Your task to perform on an android device: Go to Yahoo.com Image 0: 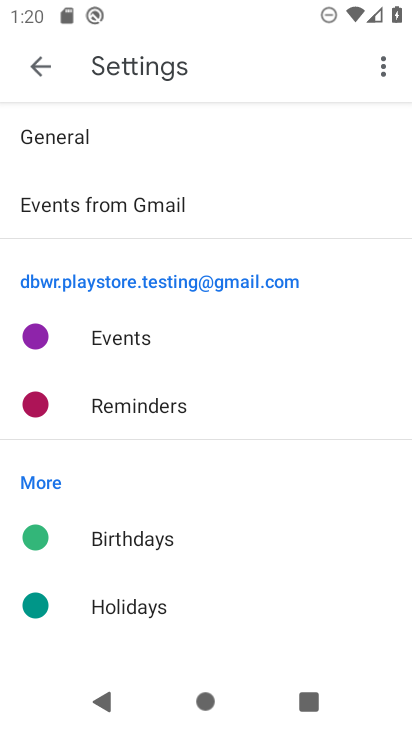
Step 0: press home button
Your task to perform on an android device: Go to Yahoo.com Image 1: 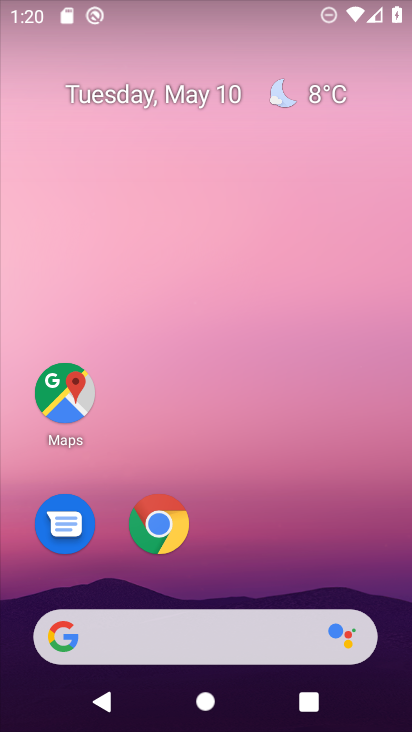
Step 1: click (275, 644)
Your task to perform on an android device: Go to Yahoo.com Image 2: 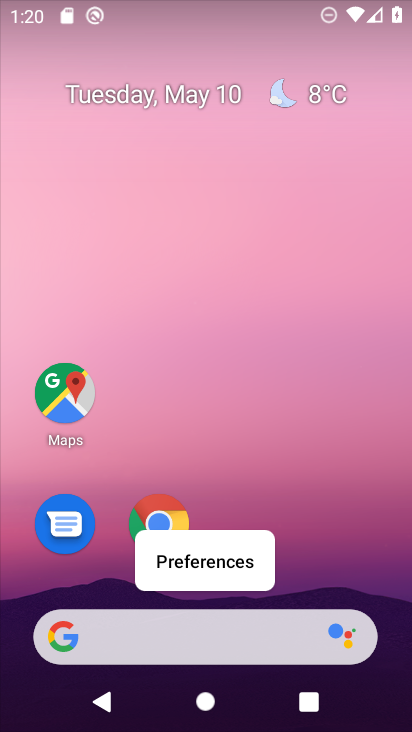
Step 2: click (267, 633)
Your task to perform on an android device: Go to Yahoo.com Image 3: 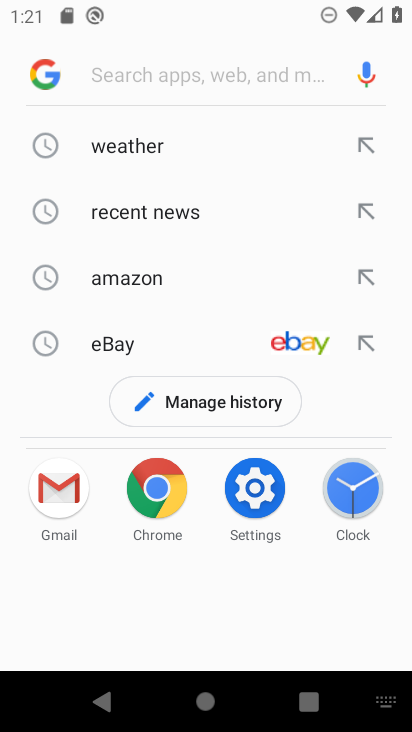
Step 3: type "yahoo.com"
Your task to perform on an android device: Go to Yahoo.com Image 4: 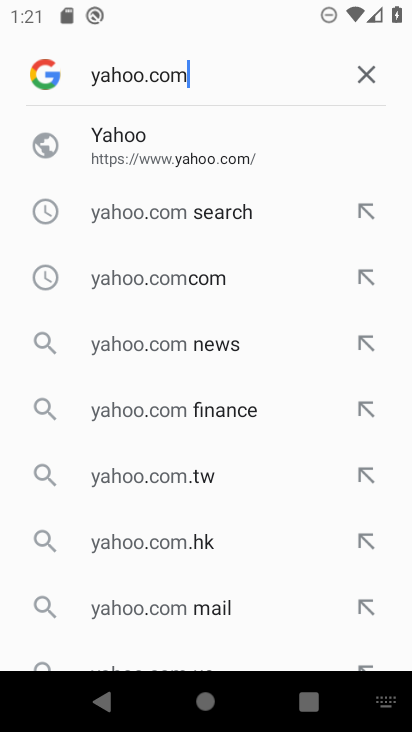
Step 4: click (141, 138)
Your task to perform on an android device: Go to Yahoo.com Image 5: 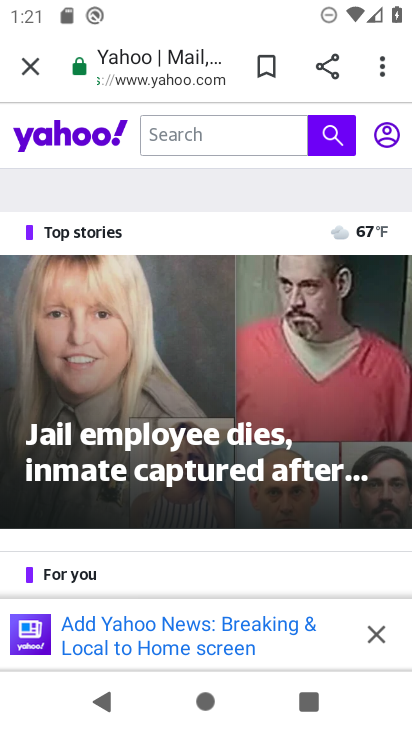
Step 5: task complete